Your task to perform on an android device: toggle pop-ups in chrome Image 0: 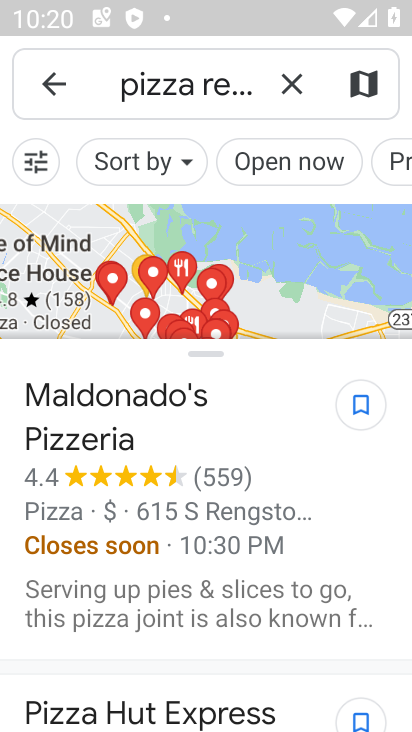
Step 0: press home button
Your task to perform on an android device: toggle pop-ups in chrome Image 1: 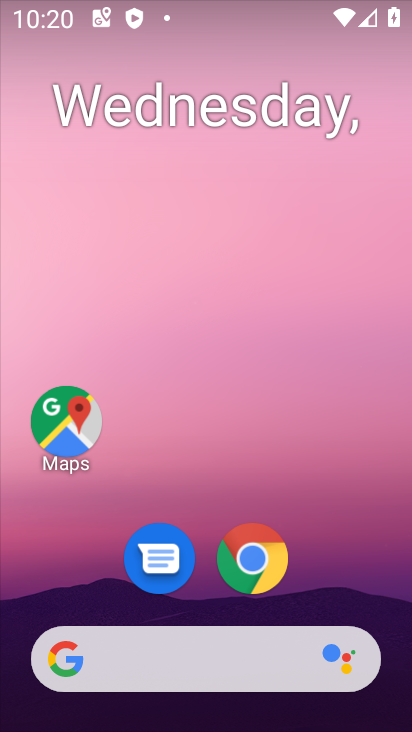
Step 1: click (250, 555)
Your task to perform on an android device: toggle pop-ups in chrome Image 2: 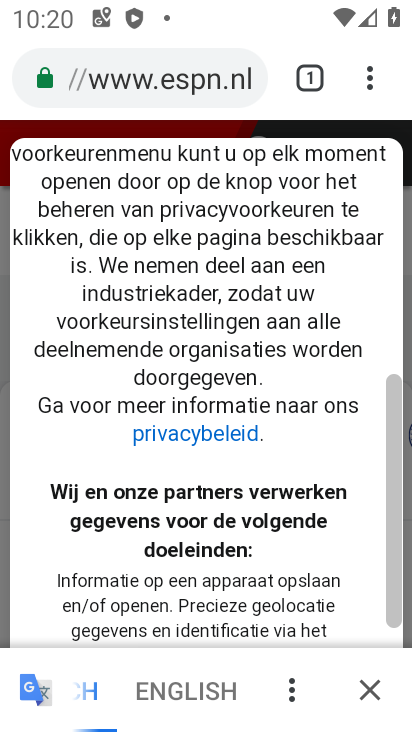
Step 2: click (363, 88)
Your task to perform on an android device: toggle pop-ups in chrome Image 3: 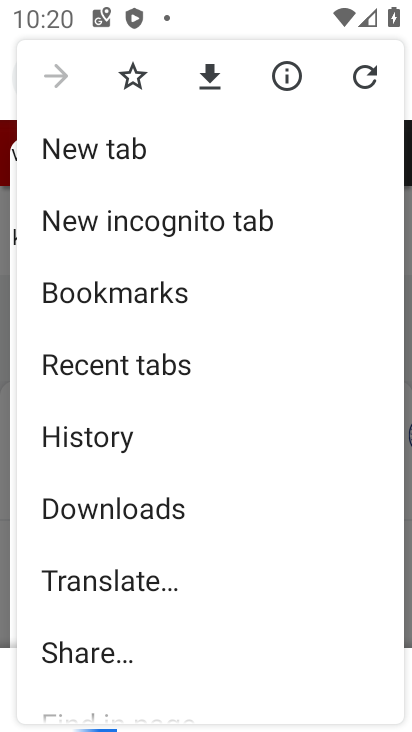
Step 3: drag from (218, 647) to (313, 103)
Your task to perform on an android device: toggle pop-ups in chrome Image 4: 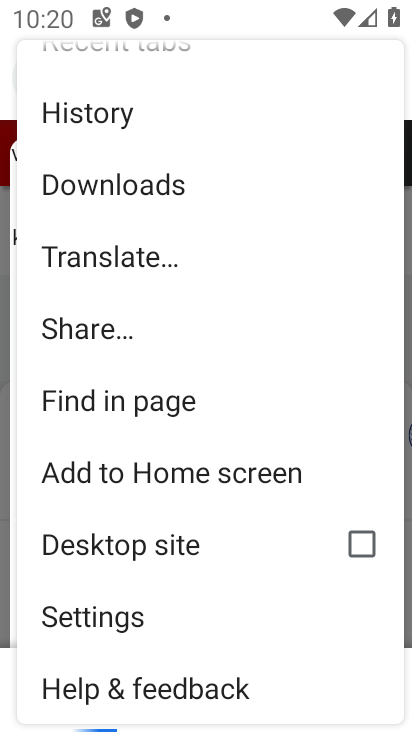
Step 4: click (72, 629)
Your task to perform on an android device: toggle pop-ups in chrome Image 5: 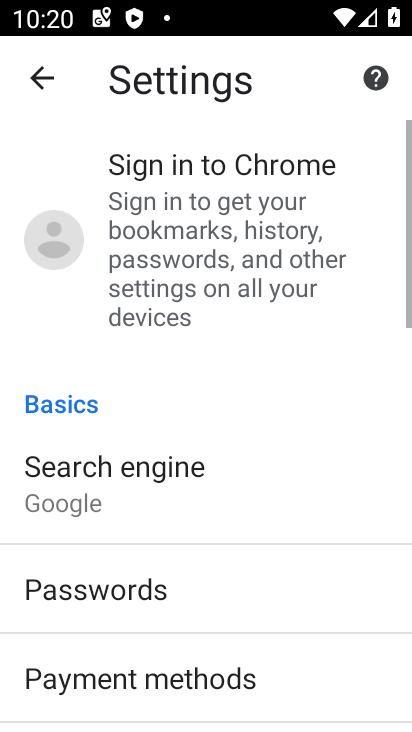
Step 5: drag from (78, 600) to (186, 155)
Your task to perform on an android device: toggle pop-ups in chrome Image 6: 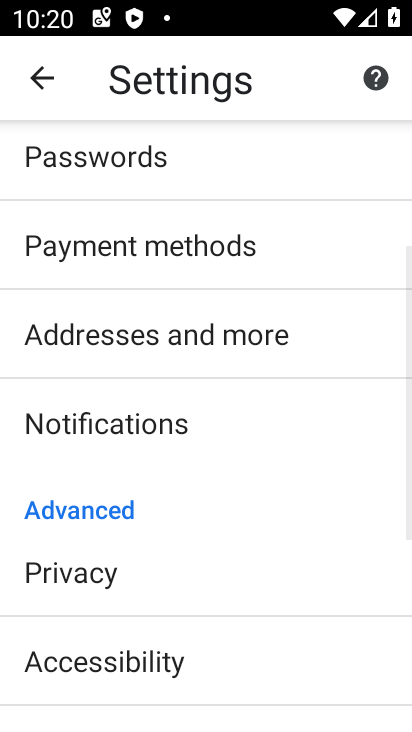
Step 6: drag from (48, 701) to (233, 216)
Your task to perform on an android device: toggle pop-ups in chrome Image 7: 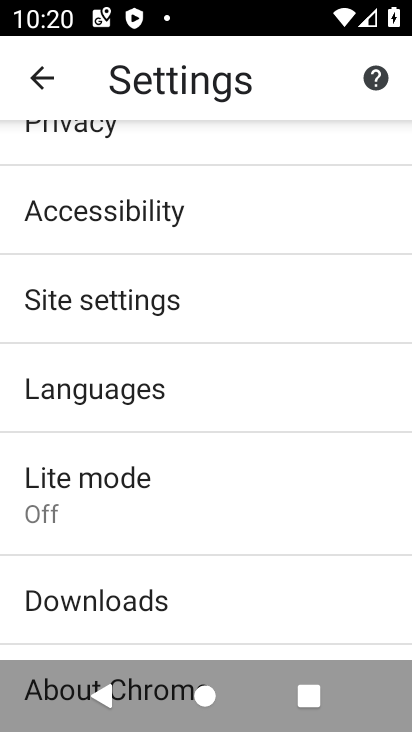
Step 7: click (109, 292)
Your task to perform on an android device: toggle pop-ups in chrome Image 8: 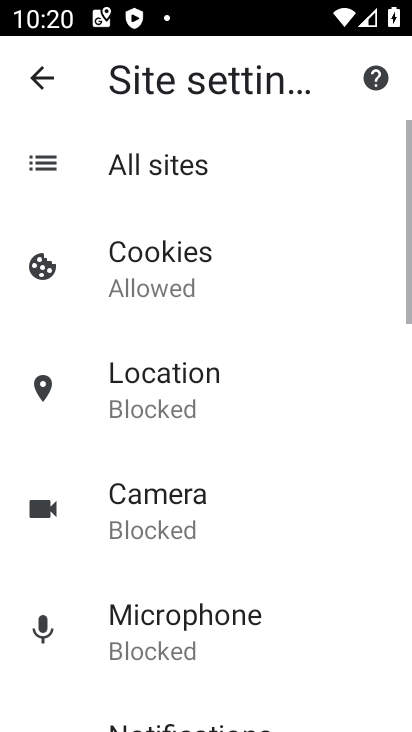
Step 8: drag from (136, 611) to (313, 97)
Your task to perform on an android device: toggle pop-ups in chrome Image 9: 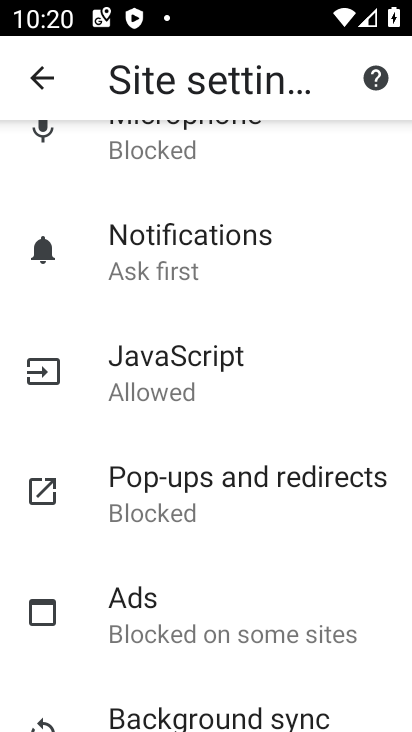
Step 9: click (170, 489)
Your task to perform on an android device: toggle pop-ups in chrome Image 10: 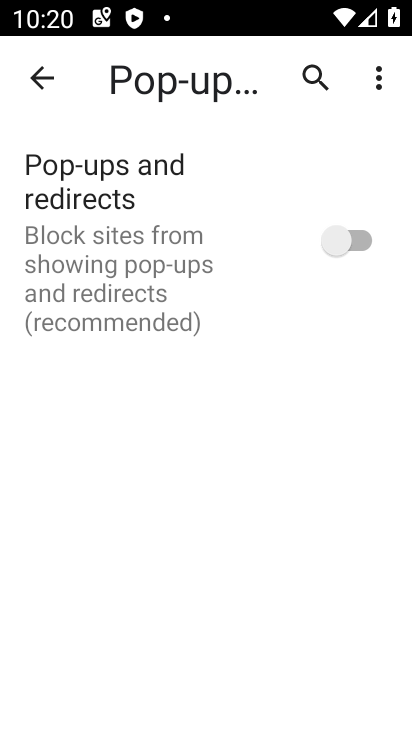
Step 10: click (339, 242)
Your task to perform on an android device: toggle pop-ups in chrome Image 11: 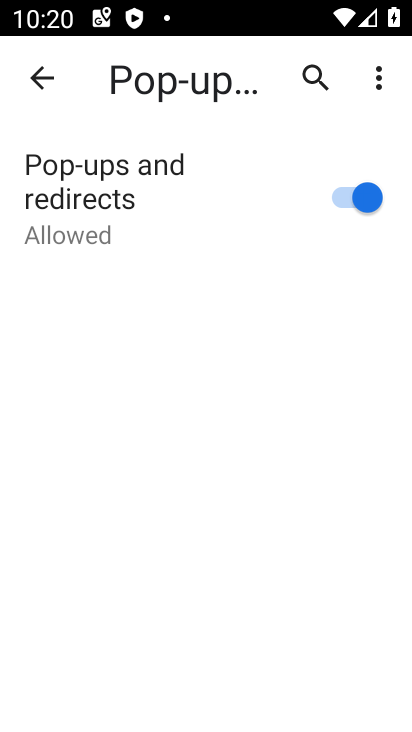
Step 11: task complete